Your task to perform on an android device: turn off javascript in the chrome app Image 0: 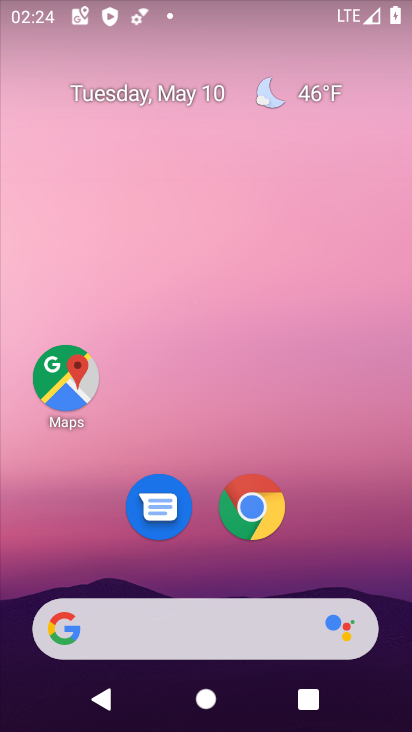
Step 0: drag from (244, 630) to (260, 183)
Your task to perform on an android device: turn off javascript in the chrome app Image 1: 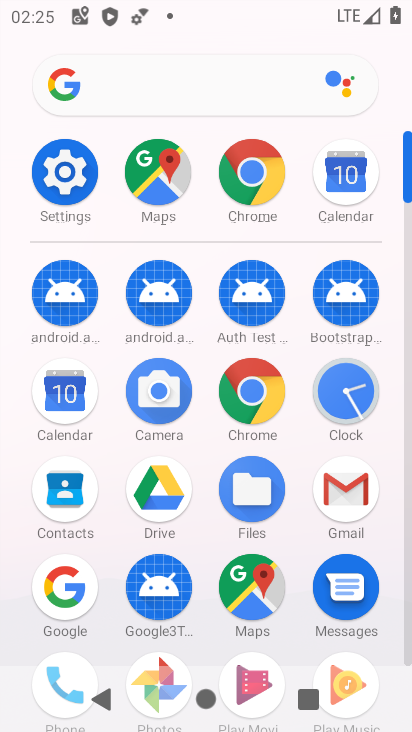
Step 1: click (252, 181)
Your task to perform on an android device: turn off javascript in the chrome app Image 2: 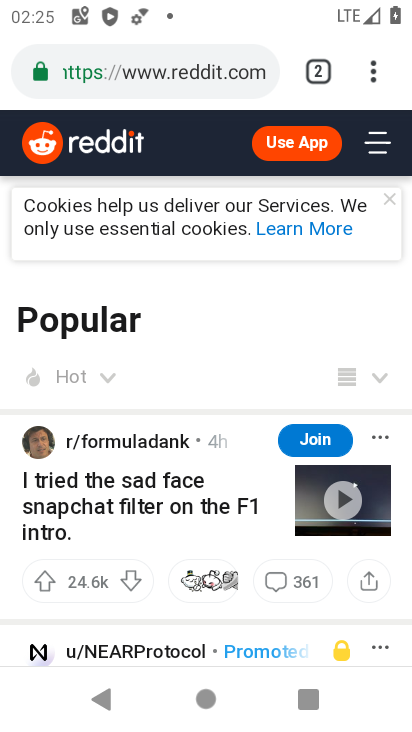
Step 2: click (373, 73)
Your task to perform on an android device: turn off javascript in the chrome app Image 3: 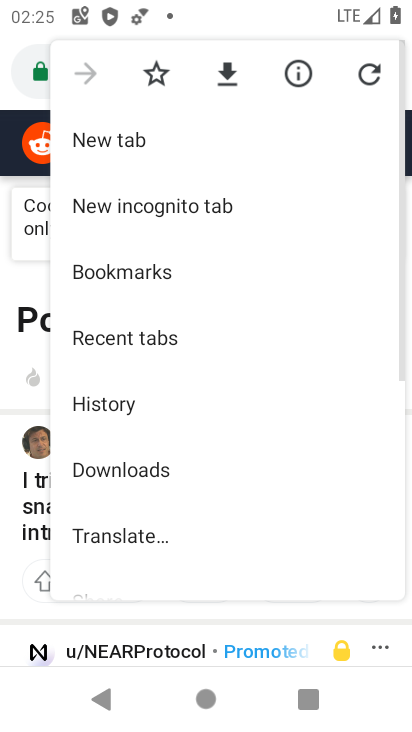
Step 3: drag from (207, 531) to (276, 349)
Your task to perform on an android device: turn off javascript in the chrome app Image 4: 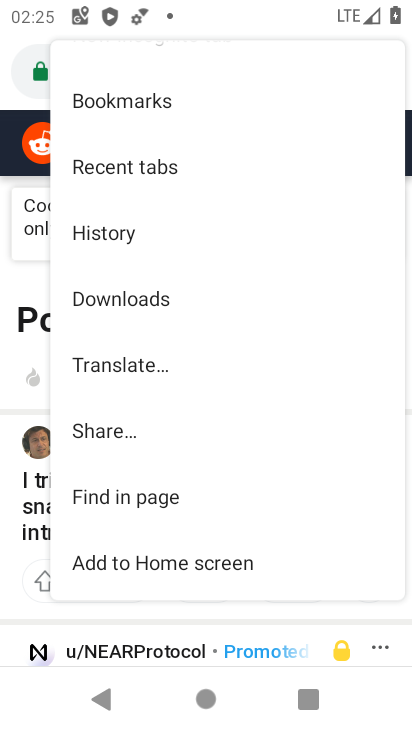
Step 4: drag from (183, 421) to (226, 358)
Your task to perform on an android device: turn off javascript in the chrome app Image 5: 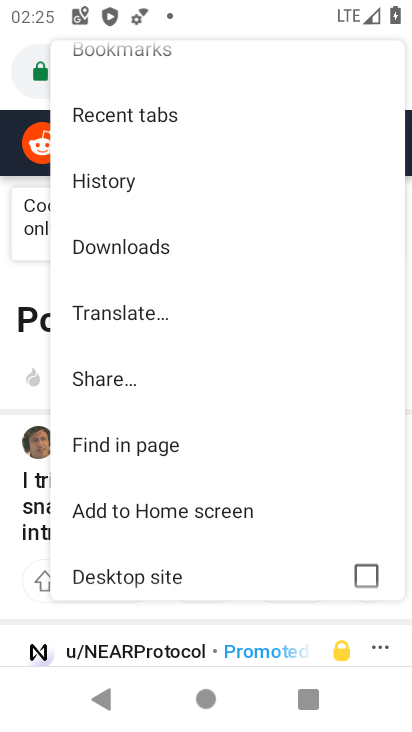
Step 5: drag from (105, 547) to (213, 268)
Your task to perform on an android device: turn off javascript in the chrome app Image 6: 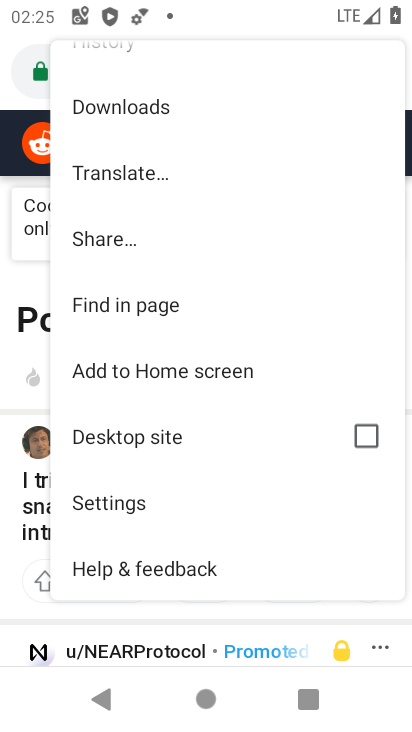
Step 6: click (126, 498)
Your task to perform on an android device: turn off javascript in the chrome app Image 7: 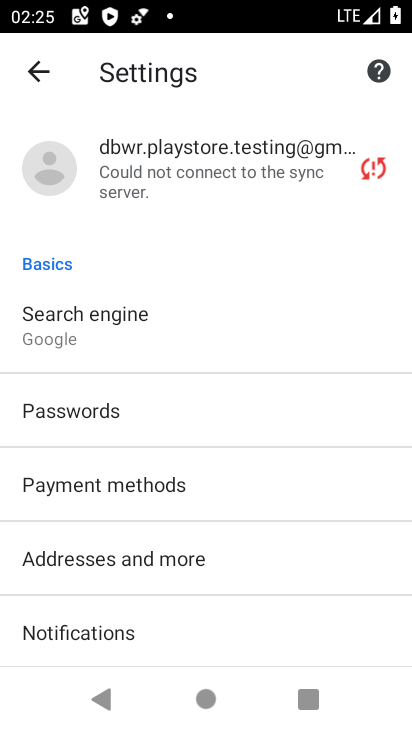
Step 7: drag from (119, 581) to (244, 247)
Your task to perform on an android device: turn off javascript in the chrome app Image 8: 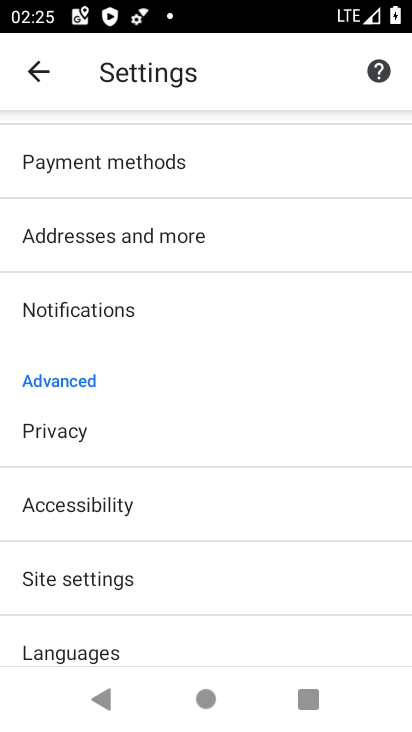
Step 8: click (138, 579)
Your task to perform on an android device: turn off javascript in the chrome app Image 9: 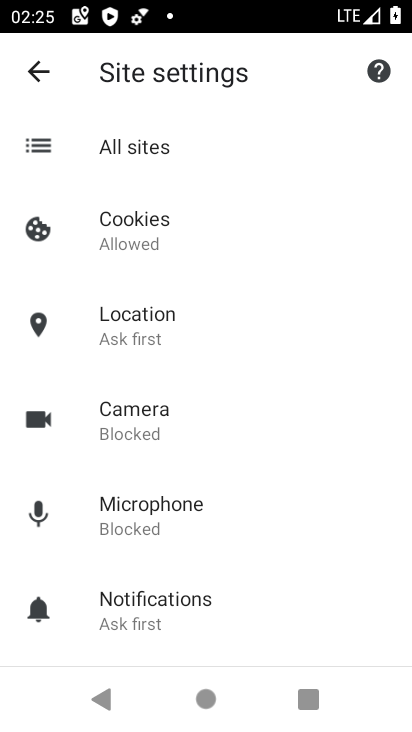
Step 9: drag from (175, 559) to (289, 262)
Your task to perform on an android device: turn off javascript in the chrome app Image 10: 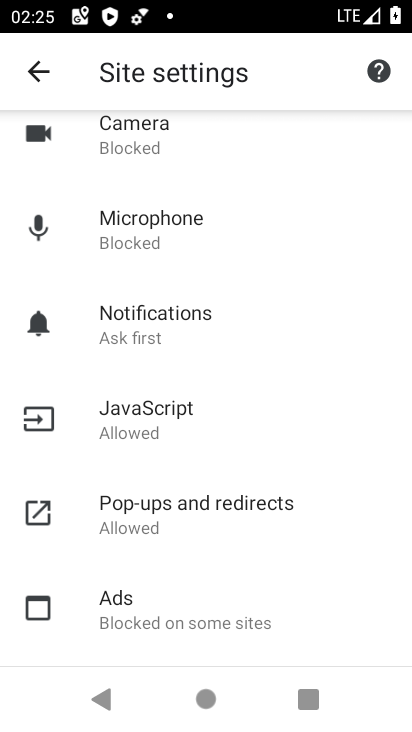
Step 10: click (204, 420)
Your task to perform on an android device: turn off javascript in the chrome app Image 11: 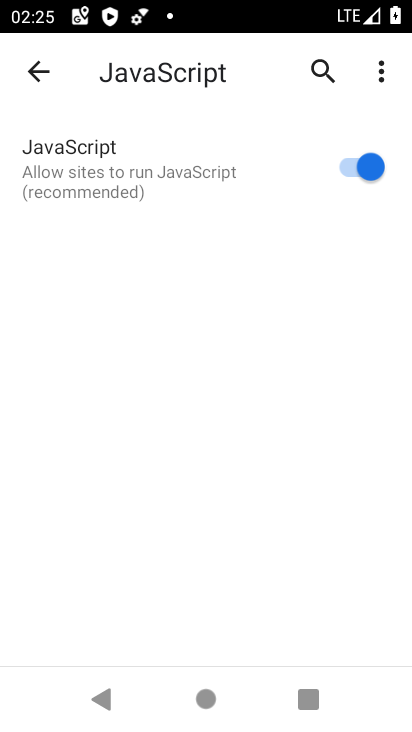
Step 11: click (353, 149)
Your task to perform on an android device: turn off javascript in the chrome app Image 12: 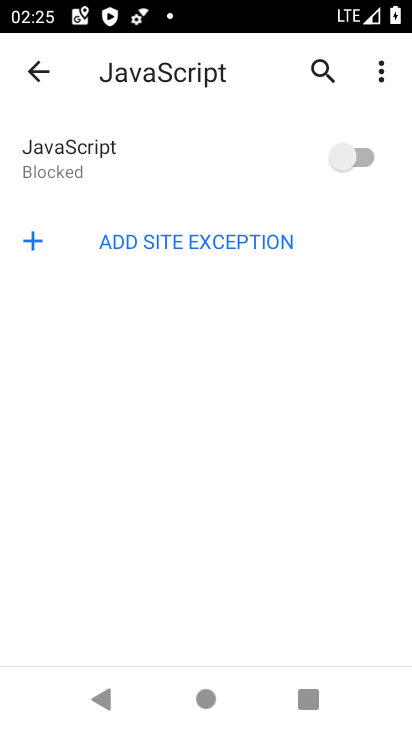
Step 12: task complete